Your task to perform on an android device: toggle notifications settings in the gmail app Image 0: 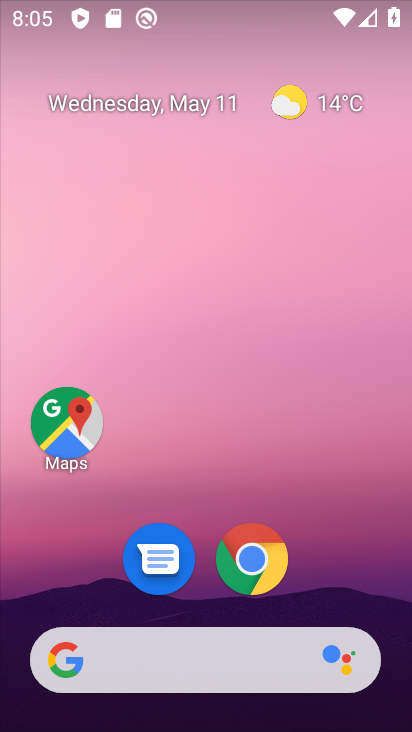
Step 0: press home button
Your task to perform on an android device: toggle notifications settings in the gmail app Image 1: 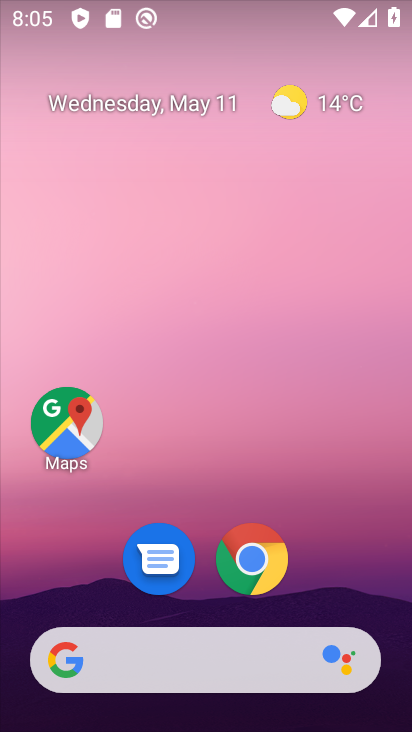
Step 1: drag from (338, 586) to (330, 15)
Your task to perform on an android device: toggle notifications settings in the gmail app Image 2: 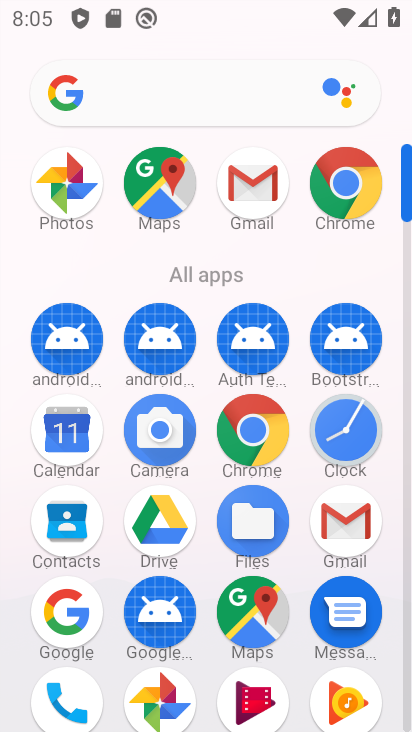
Step 2: click (251, 178)
Your task to perform on an android device: toggle notifications settings in the gmail app Image 3: 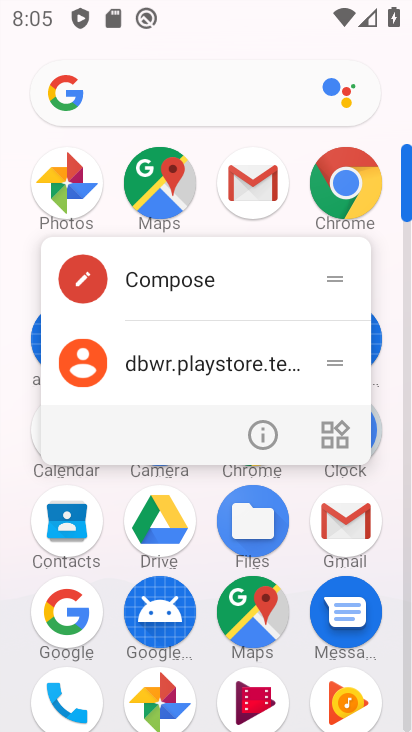
Step 3: click (264, 434)
Your task to perform on an android device: toggle notifications settings in the gmail app Image 4: 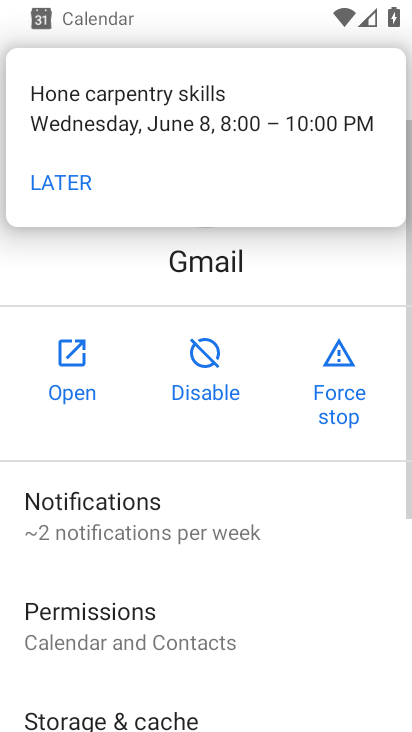
Step 4: click (203, 499)
Your task to perform on an android device: toggle notifications settings in the gmail app Image 5: 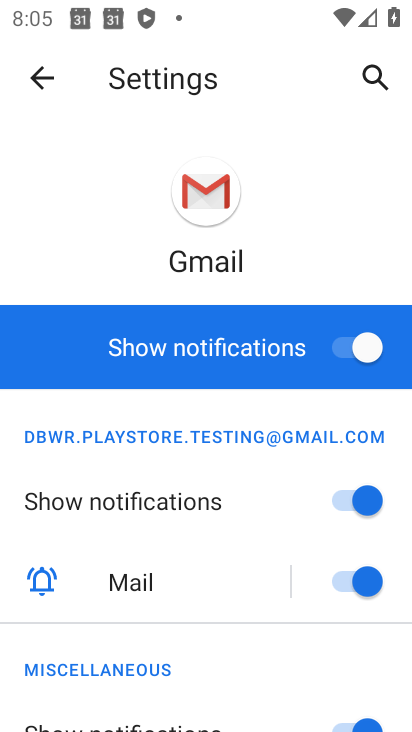
Step 5: click (334, 354)
Your task to perform on an android device: toggle notifications settings in the gmail app Image 6: 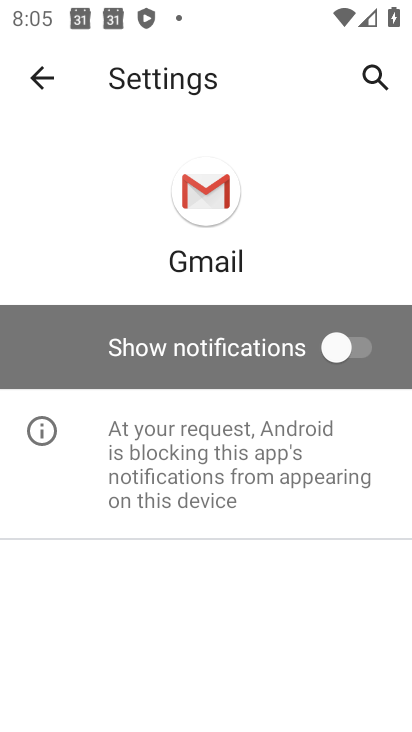
Step 6: task complete